Your task to perform on an android device: Open CNN.com Image 0: 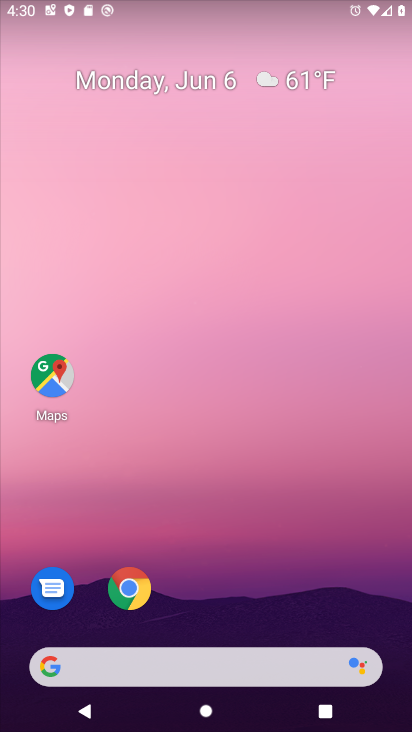
Step 0: click (124, 599)
Your task to perform on an android device: Open CNN.com Image 1: 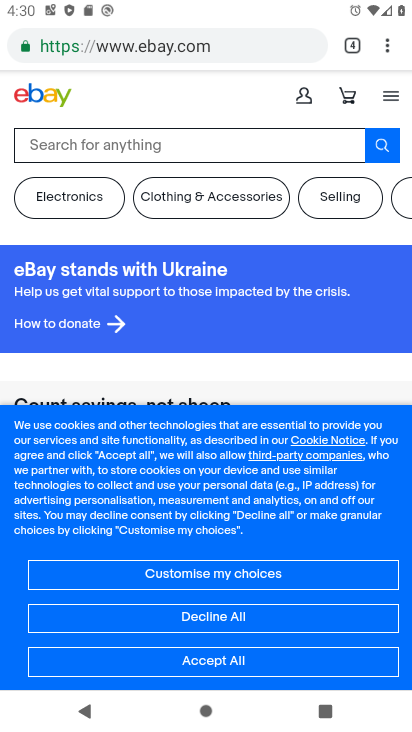
Step 1: click (191, 42)
Your task to perform on an android device: Open CNN.com Image 2: 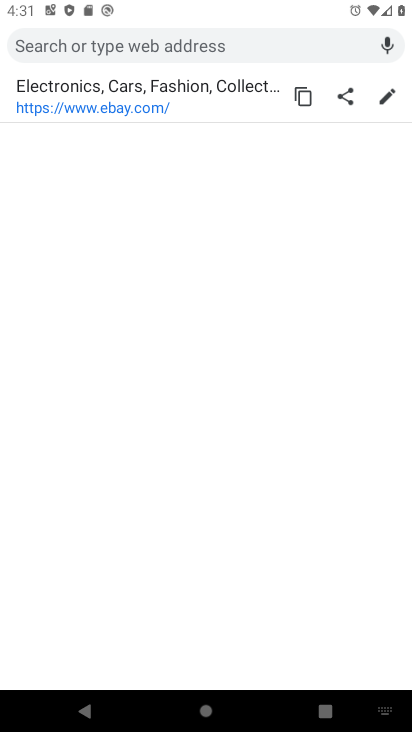
Step 2: type "cnn.com"
Your task to perform on an android device: Open CNN.com Image 3: 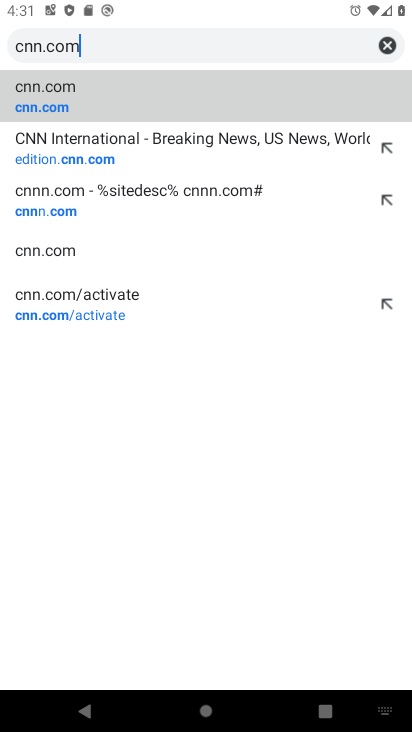
Step 3: click (57, 104)
Your task to perform on an android device: Open CNN.com Image 4: 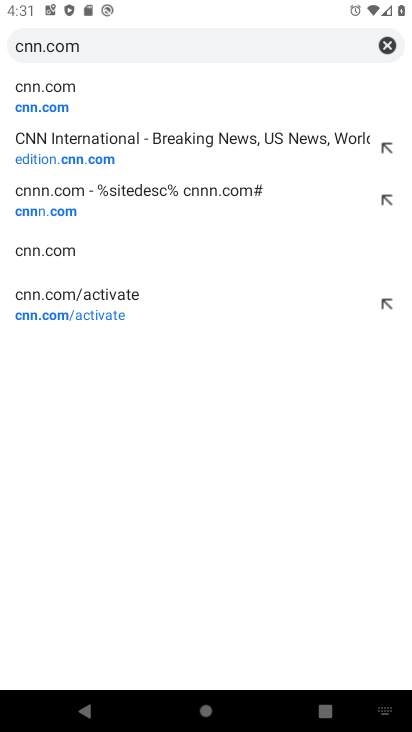
Step 4: click (30, 109)
Your task to perform on an android device: Open CNN.com Image 5: 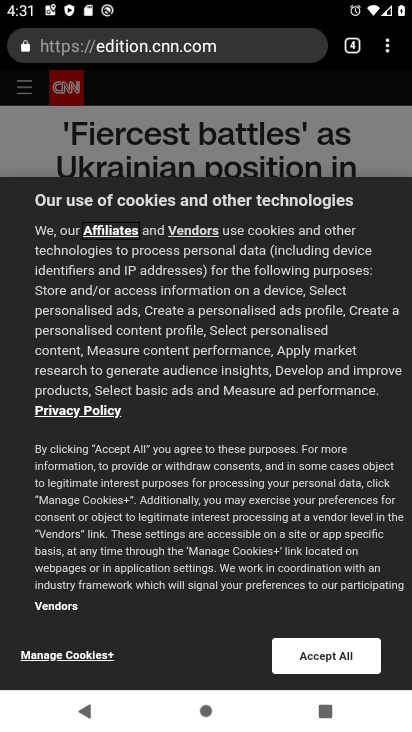
Step 5: task complete